Your task to perform on an android device: Go to Android settings Image 0: 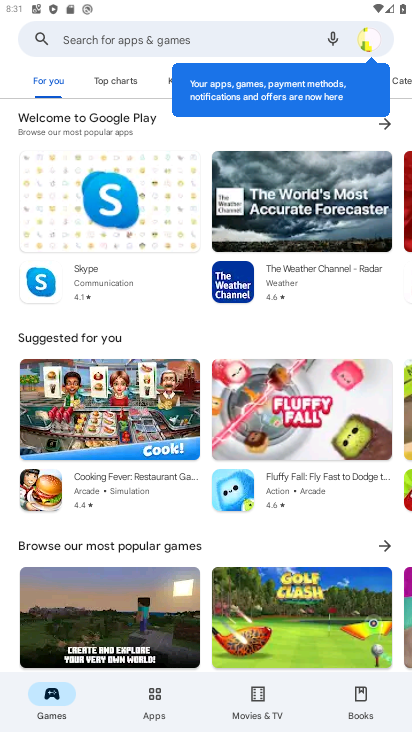
Step 0: press home button
Your task to perform on an android device: Go to Android settings Image 1: 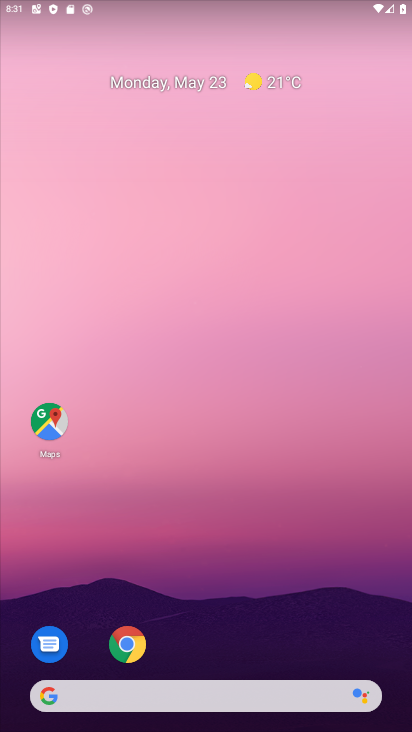
Step 1: drag from (248, 717) to (255, 22)
Your task to perform on an android device: Go to Android settings Image 2: 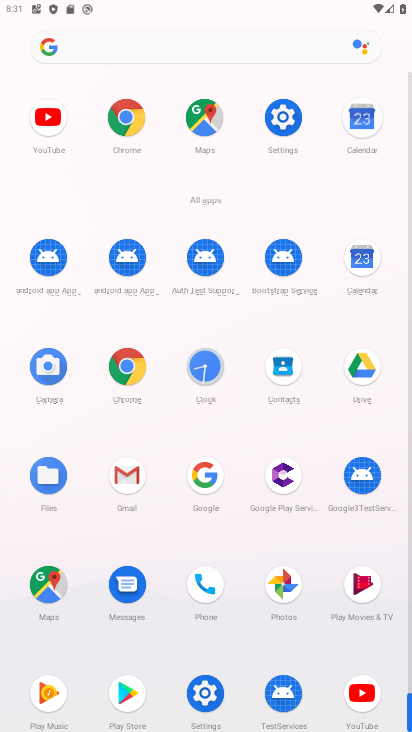
Step 2: click (286, 133)
Your task to perform on an android device: Go to Android settings Image 3: 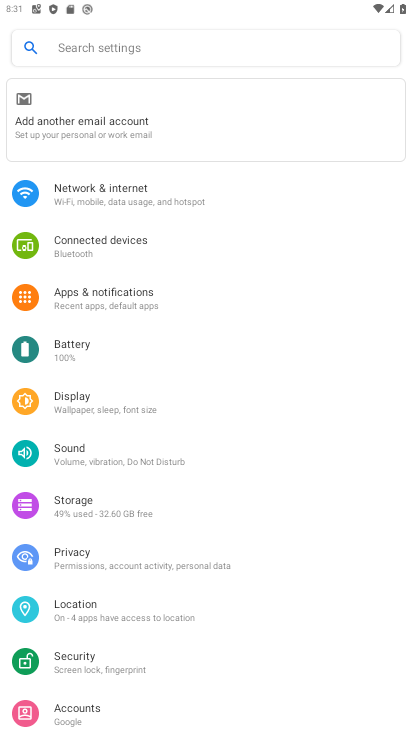
Step 3: drag from (294, 681) to (283, 82)
Your task to perform on an android device: Go to Android settings Image 4: 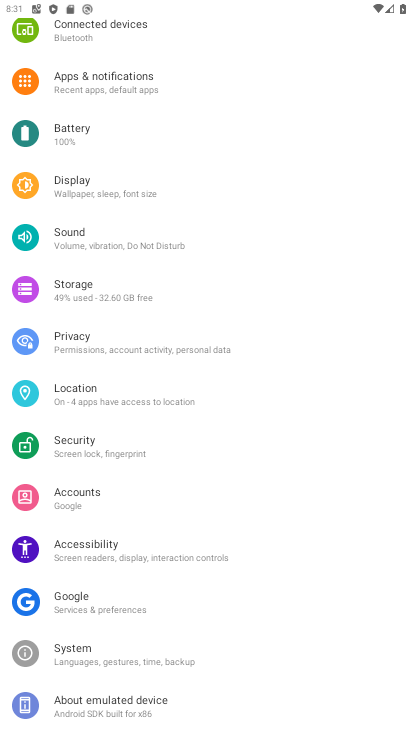
Step 4: click (188, 706)
Your task to perform on an android device: Go to Android settings Image 5: 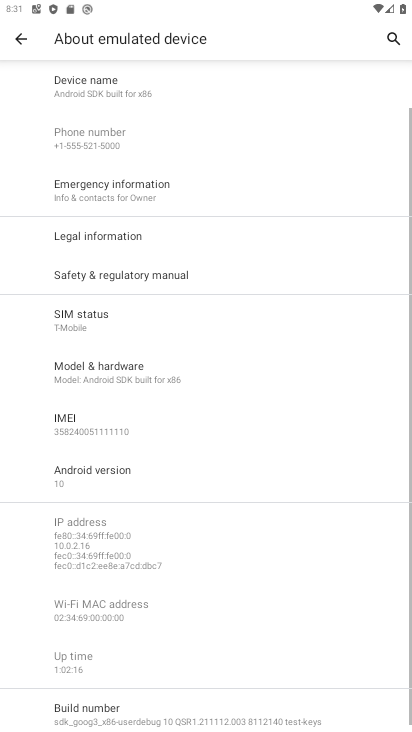
Step 5: task complete